Your task to perform on an android device: turn on wifi Image 0: 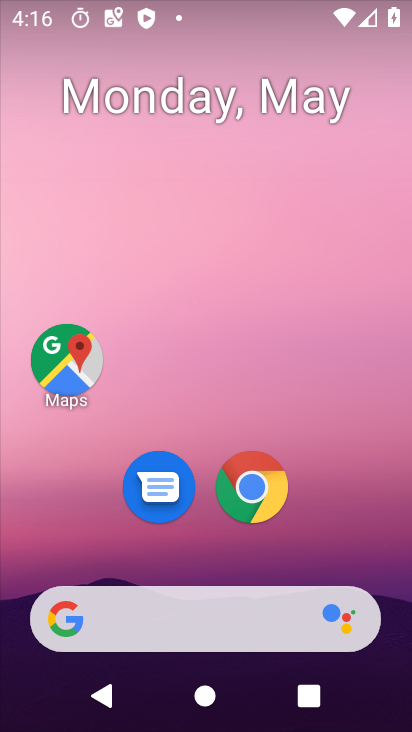
Step 0: drag from (263, 570) to (280, 68)
Your task to perform on an android device: turn on wifi Image 1: 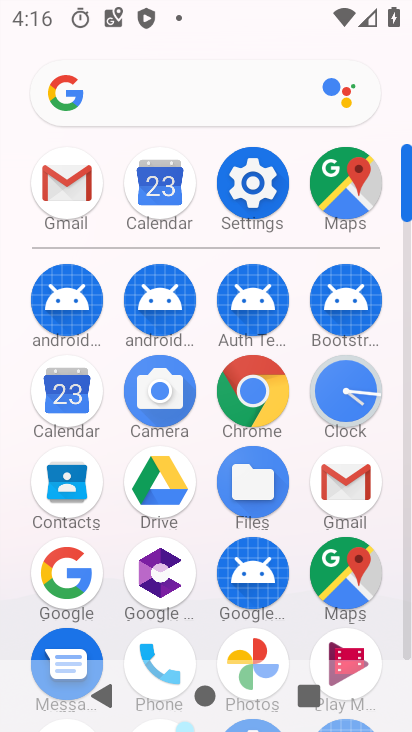
Step 1: click (254, 199)
Your task to perform on an android device: turn on wifi Image 2: 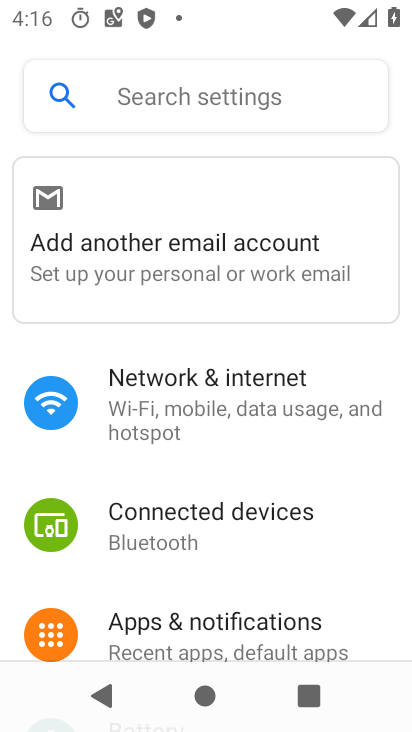
Step 2: click (187, 411)
Your task to perform on an android device: turn on wifi Image 3: 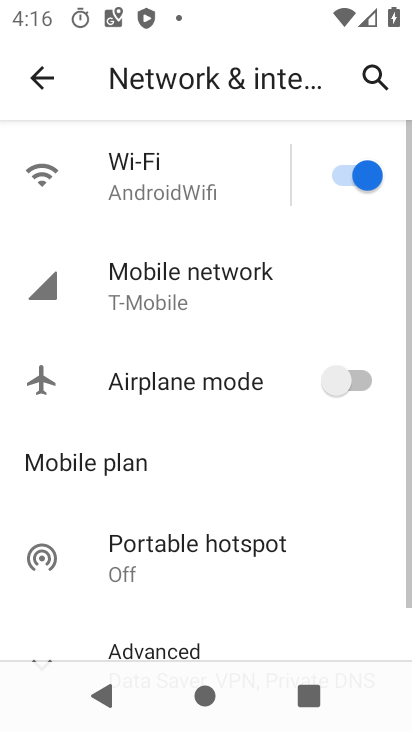
Step 3: click (153, 200)
Your task to perform on an android device: turn on wifi Image 4: 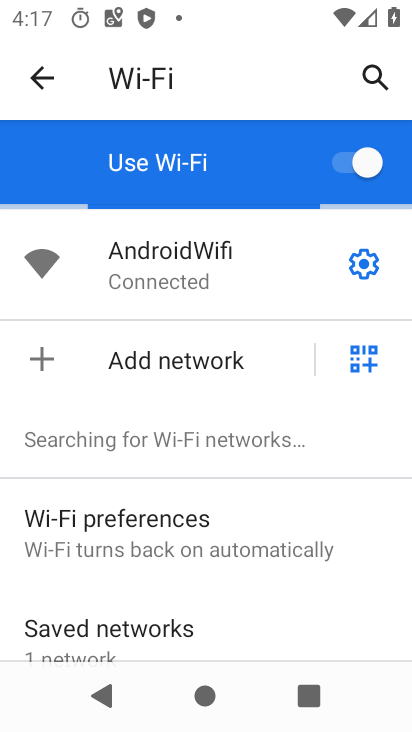
Step 4: task complete